Your task to perform on an android device: open wifi settings Image 0: 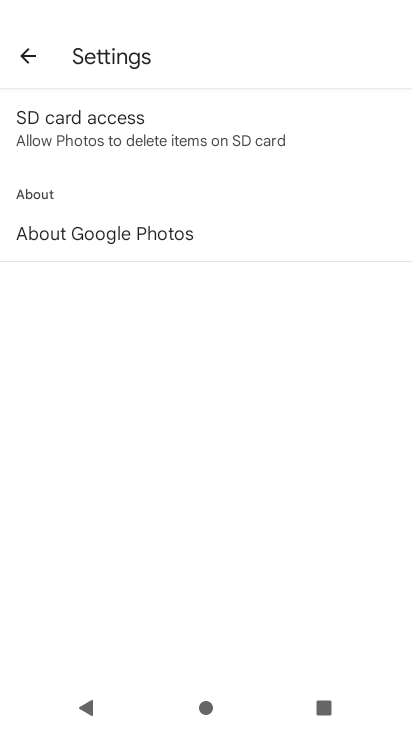
Step 0: press home button
Your task to perform on an android device: open wifi settings Image 1: 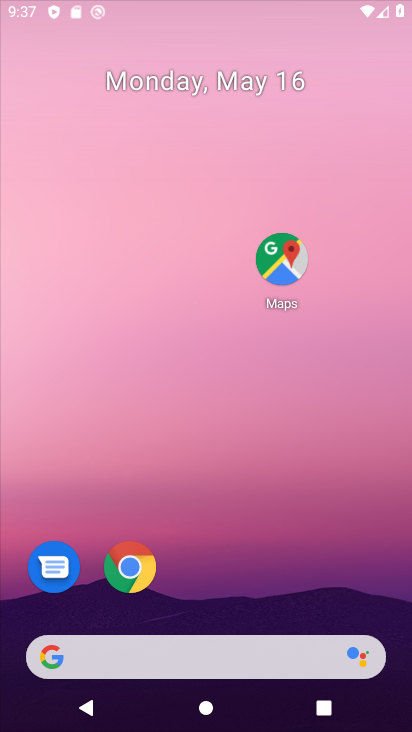
Step 1: drag from (249, 593) to (230, 91)
Your task to perform on an android device: open wifi settings Image 2: 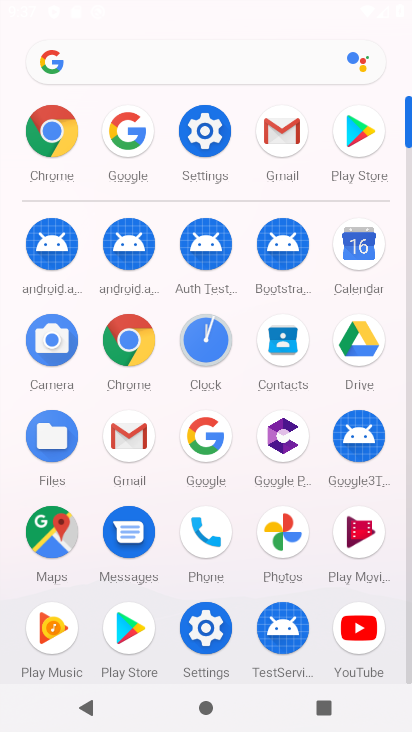
Step 2: click (213, 117)
Your task to perform on an android device: open wifi settings Image 3: 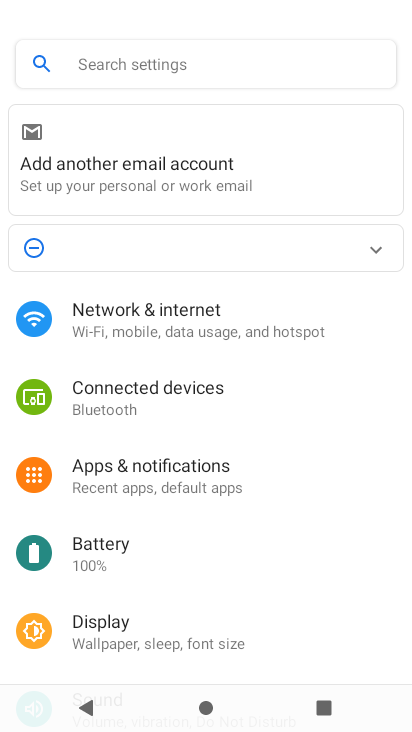
Step 3: click (182, 316)
Your task to perform on an android device: open wifi settings Image 4: 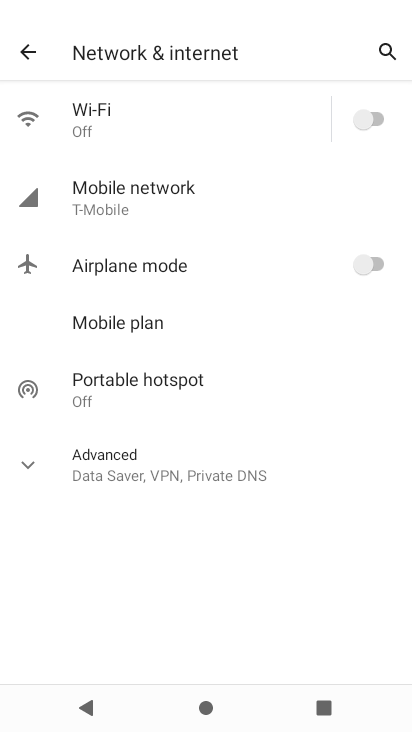
Step 4: click (149, 110)
Your task to perform on an android device: open wifi settings Image 5: 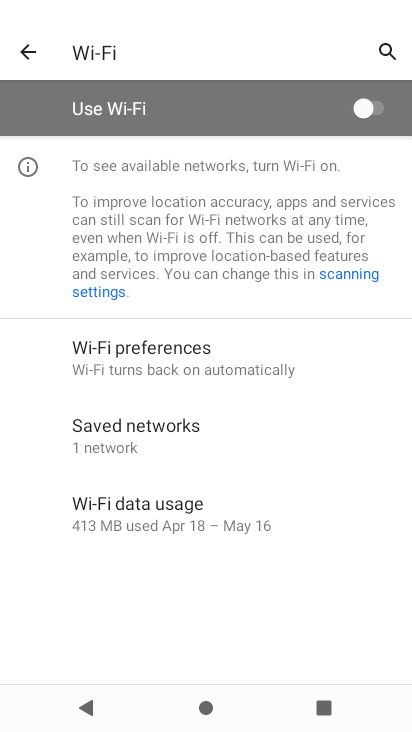
Step 5: click (360, 110)
Your task to perform on an android device: open wifi settings Image 6: 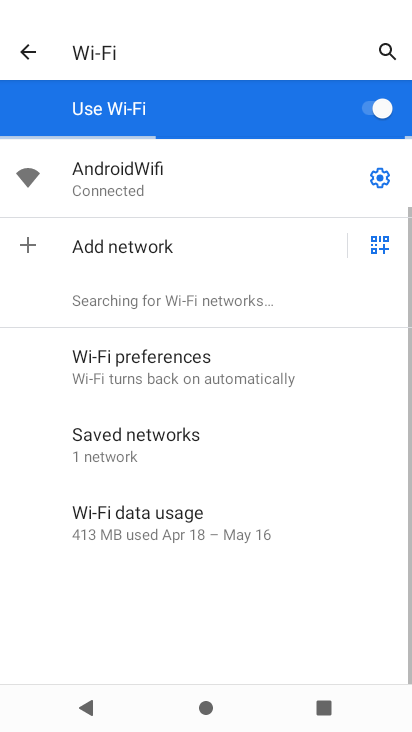
Step 6: click (378, 175)
Your task to perform on an android device: open wifi settings Image 7: 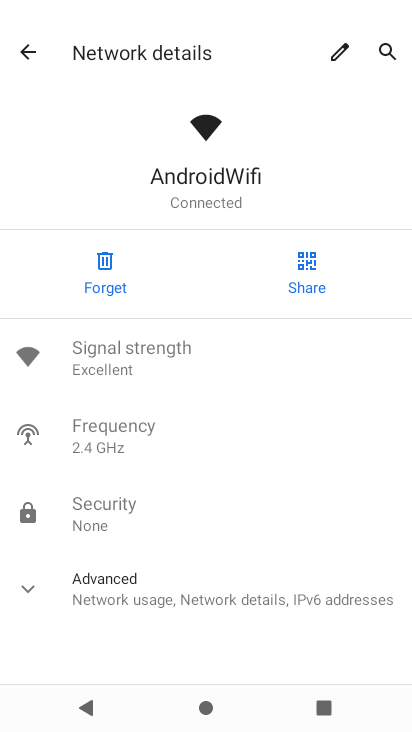
Step 7: task complete